Your task to perform on an android device: turn on showing notifications on the lock screen Image 0: 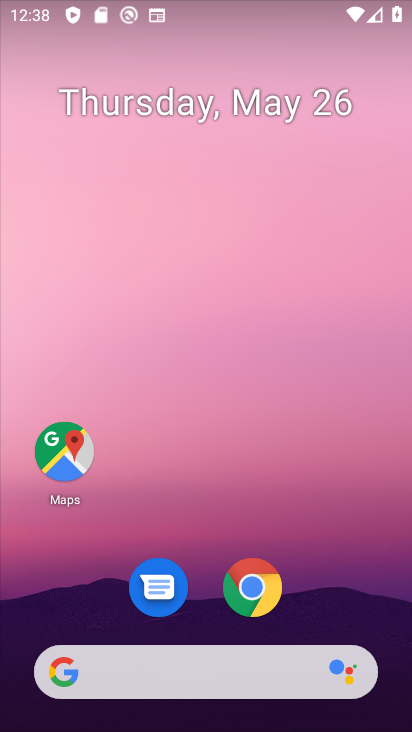
Step 0: drag from (386, 596) to (383, 293)
Your task to perform on an android device: turn on showing notifications on the lock screen Image 1: 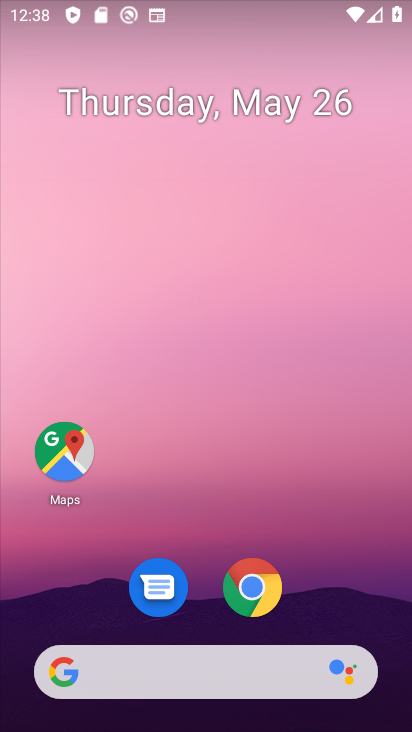
Step 1: drag from (358, 611) to (363, 215)
Your task to perform on an android device: turn on showing notifications on the lock screen Image 2: 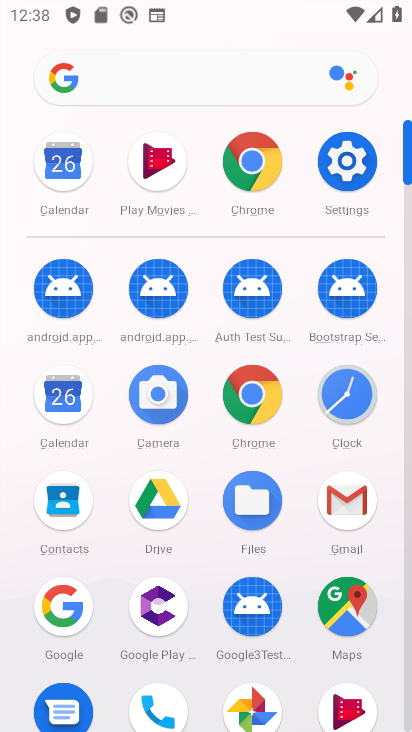
Step 2: click (351, 178)
Your task to perform on an android device: turn on showing notifications on the lock screen Image 3: 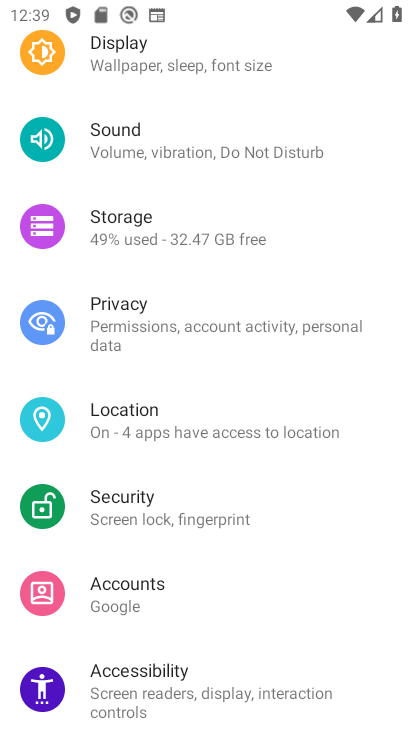
Step 3: drag from (353, 182) to (363, 266)
Your task to perform on an android device: turn on showing notifications on the lock screen Image 4: 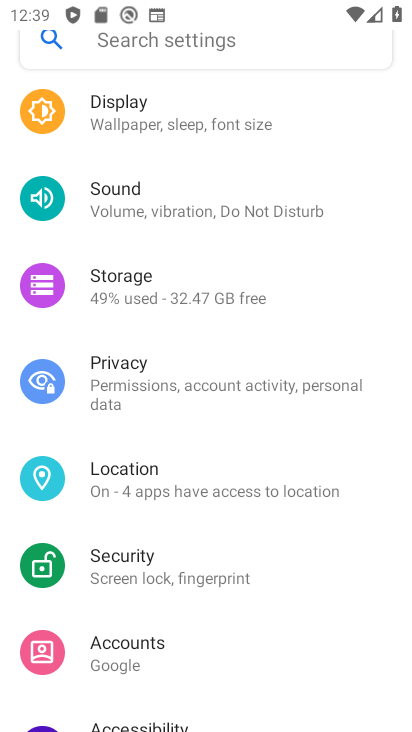
Step 4: drag from (380, 169) to (374, 244)
Your task to perform on an android device: turn on showing notifications on the lock screen Image 5: 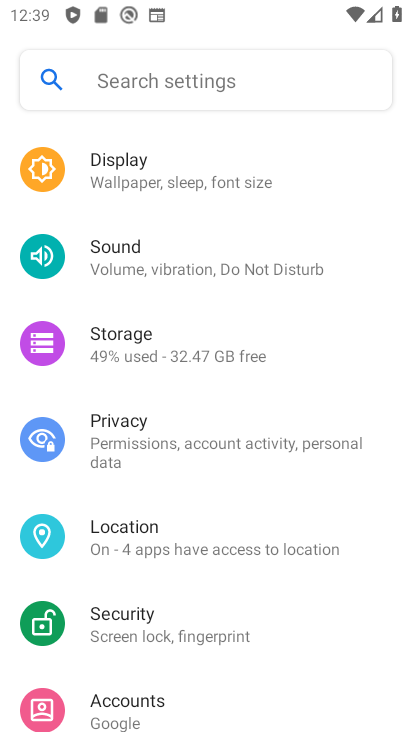
Step 5: drag from (362, 186) to (366, 253)
Your task to perform on an android device: turn on showing notifications on the lock screen Image 6: 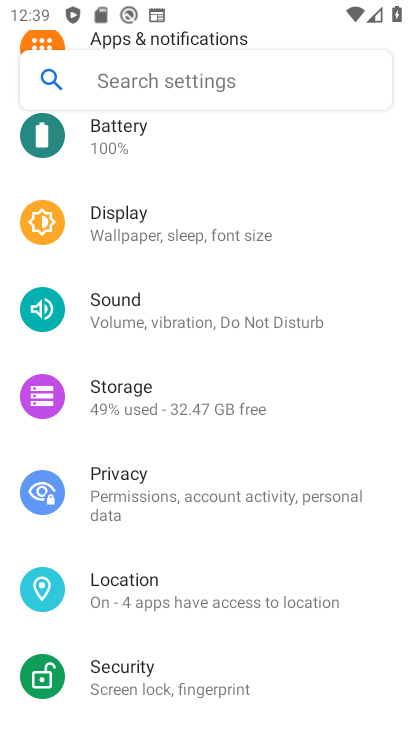
Step 6: drag from (371, 205) to (377, 301)
Your task to perform on an android device: turn on showing notifications on the lock screen Image 7: 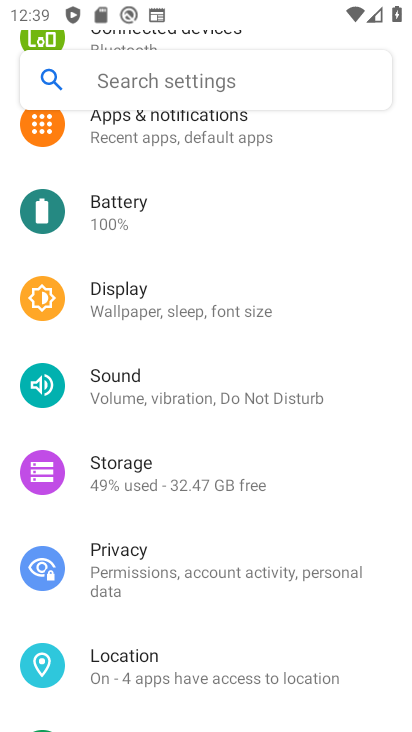
Step 7: drag from (364, 252) to (345, 330)
Your task to perform on an android device: turn on showing notifications on the lock screen Image 8: 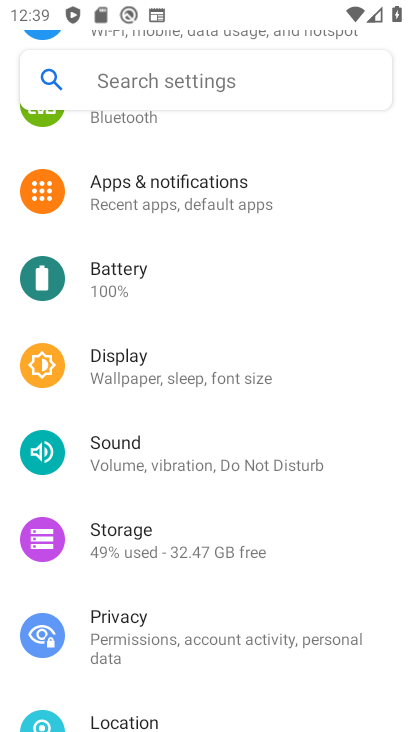
Step 8: drag from (343, 251) to (347, 328)
Your task to perform on an android device: turn on showing notifications on the lock screen Image 9: 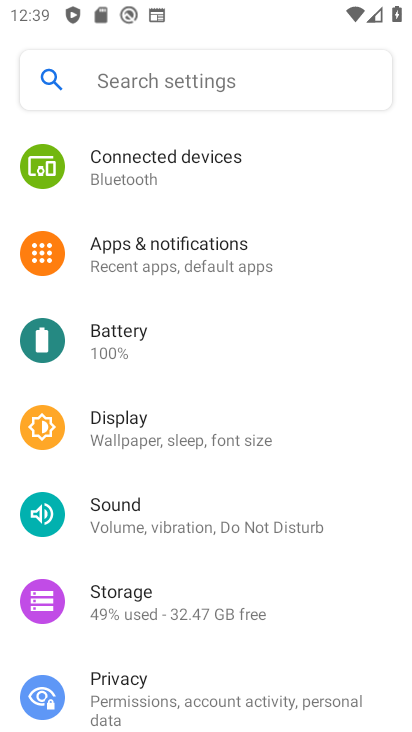
Step 9: click (259, 272)
Your task to perform on an android device: turn on showing notifications on the lock screen Image 10: 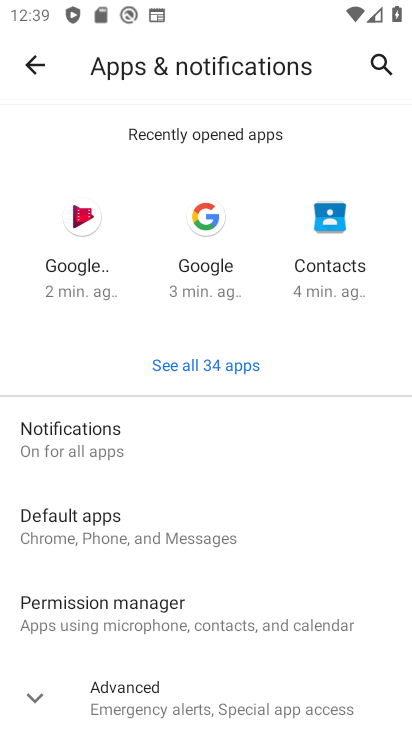
Step 10: click (100, 454)
Your task to perform on an android device: turn on showing notifications on the lock screen Image 11: 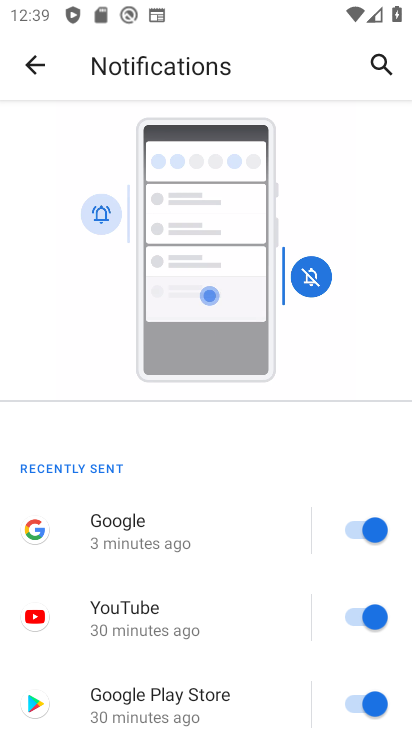
Step 11: drag from (225, 555) to (234, 491)
Your task to perform on an android device: turn on showing notifications on the lock screen Image 12: 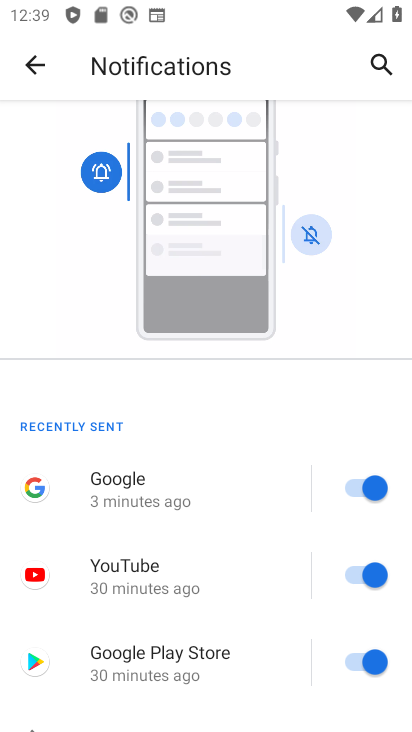
Step 12: drag from (238, 566) to (234, 481)
Your task to perform on an android device: turn on showing notifications on the lock screen Image 13: 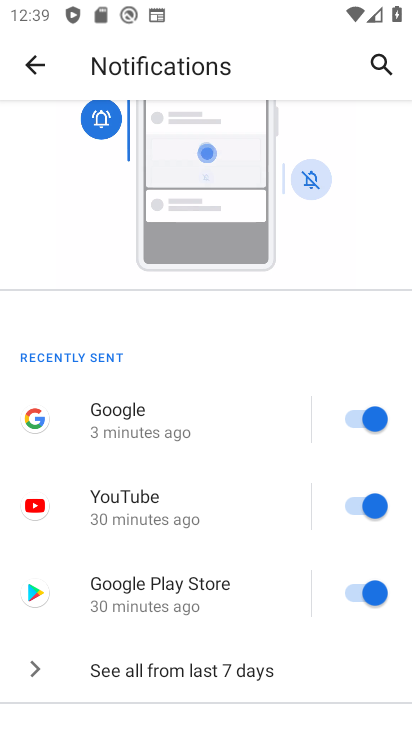
Step 13: drag from (249, 591) to (258, 505)
Your task to perform on an android device: turn on showing notifications on the lock screen Image 14: 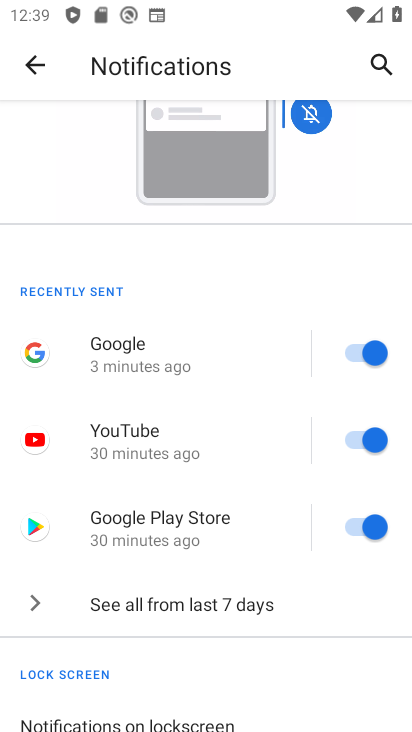
Step 14: drag from (230, 608) to (238, 510)
Your task to perform on an android device: turn on showing notifications on the lock screen Image 15: 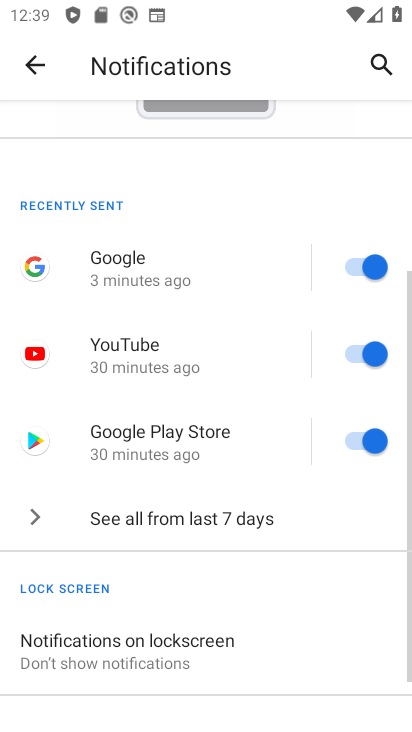
Step 15: drag from (249, 591) to (271, 477)
Your task to perform on an android device: turn on showing notifications on the lock screen Image 16: 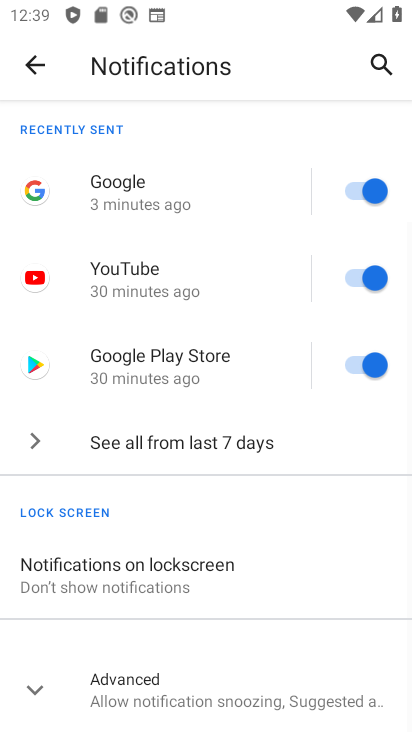
Step 16: drag from (277, 619) to (297, 474)
Your task to perform on an android device: turn on showing notifications on the lock screen Image 17: 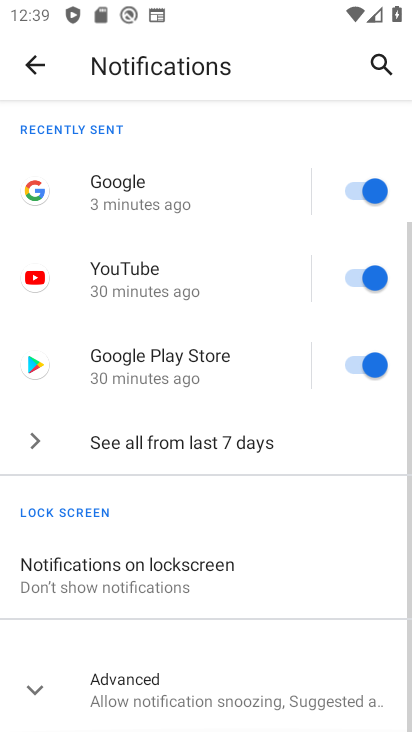
Step 17: click (203, 591)
Your task to perform on an android device: turn on showing notifications on the lock screen Image 18: 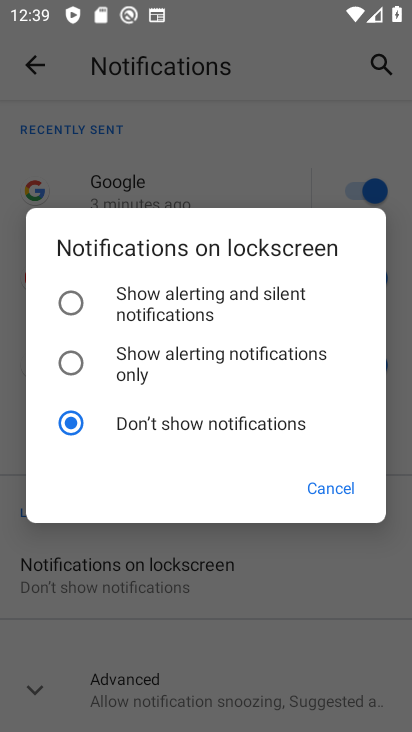
Step 18: click (69, 303)
Your task to perform on an android device: turn on showing notifications on the lock screen Image 19: 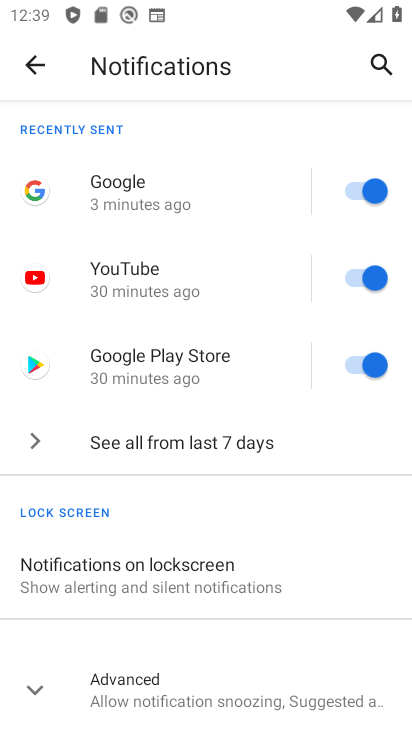
Step 19: task complete